Your task to perform on an android device: Search for vegetarian restaurants on Maps Image 0: 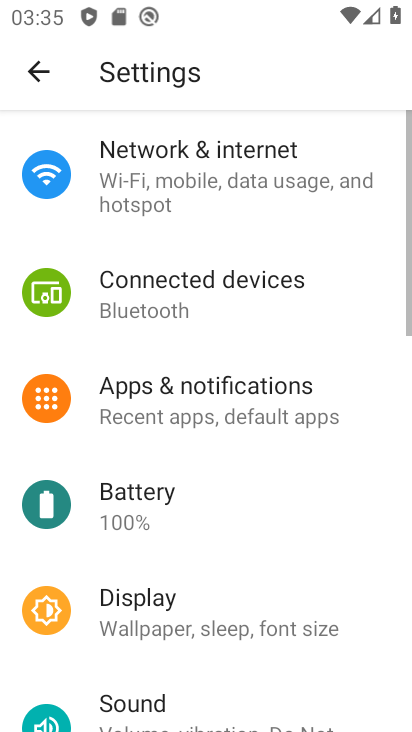
Step 0: press back button
Your task to perform on an android device: Search for vegetarian restaurants on Maps Image 1: 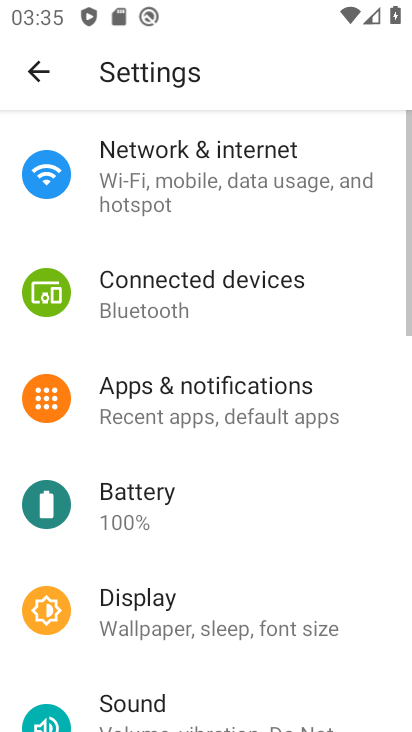
Step 1: press back button
Your task to perform on an android device: Search for vegetarian restaurants on Maps Image 2: 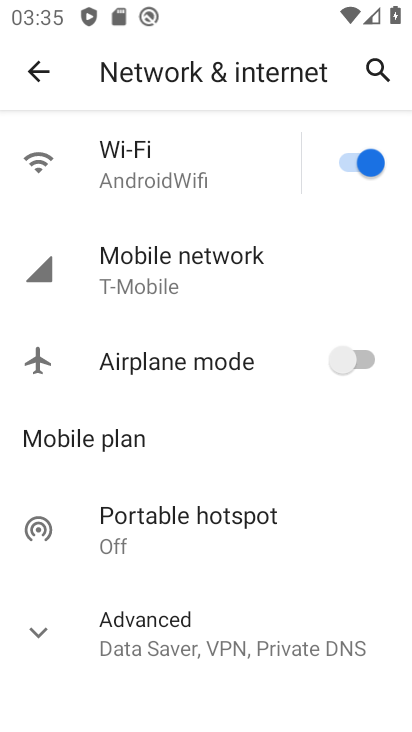
Step 2: press back button
Your task to perform on an android device: Search for vegetarian restaurants on Maps Image 3: 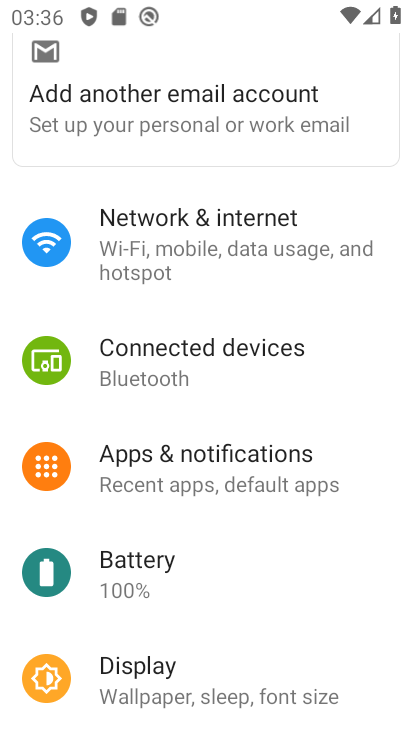
Step 3: press home button
Your task to perform on an android device: Search for vegetarian restaurants on Maps Image 4: 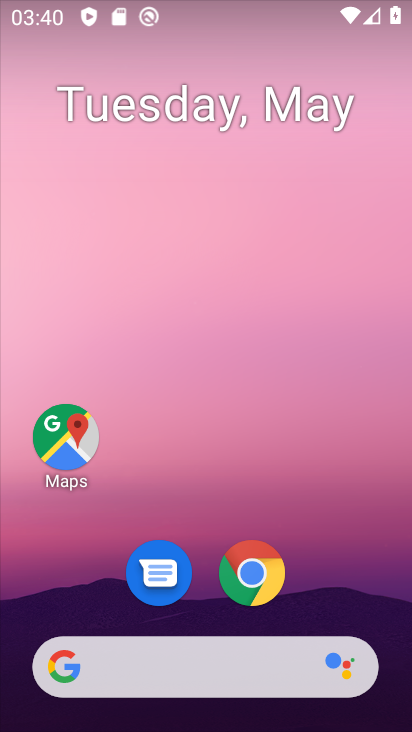
Step 4: click (74, 437)
Your task to perform on an android device: Search for vegetarian restaurants on Maps Image 5: 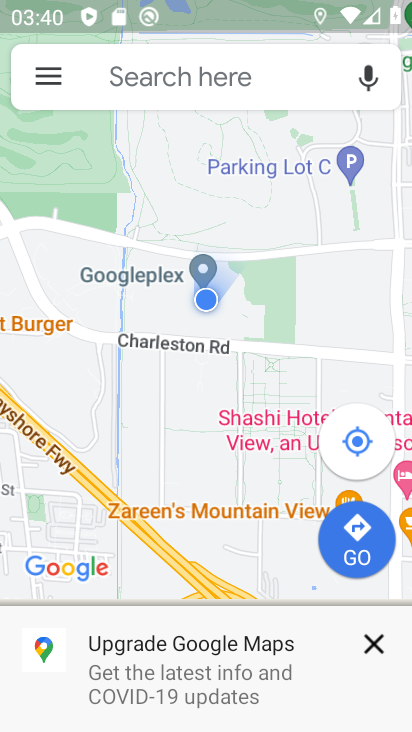
Step 5: click (155, 69)
Your task to perform on an android device: Search for vegetarian restaurants on Maps Image 6: 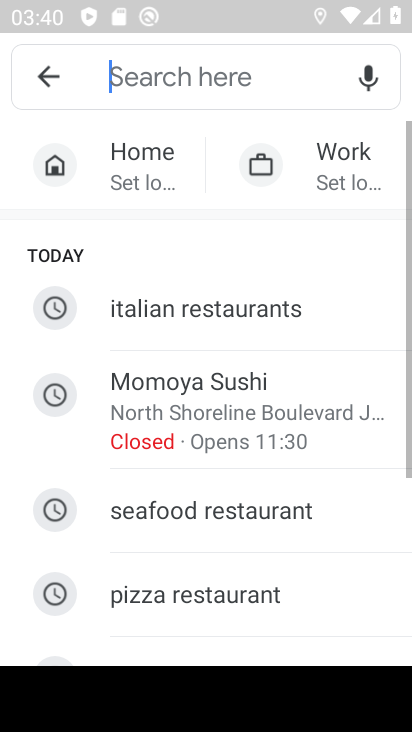
Step 6: drag from (182, 562) to (220, 131)
Your task to perform on an android device: Search for vegetarian restaurants on Maps Image 7: 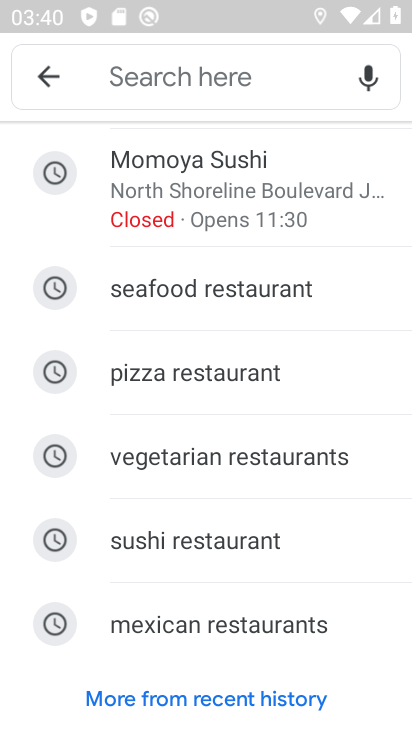
Step 7: click (158, 459)
Your task to perform on an android device: Search for vegetarian restaurants on Maps Image 8: 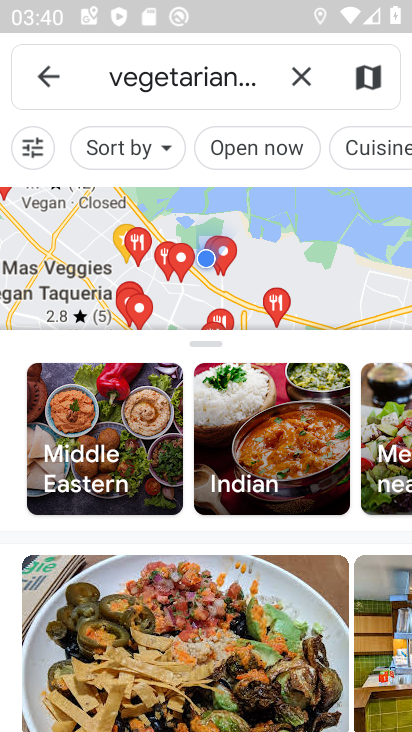
Step 8: task complete